Your task to perform on an android device: turn on the 24-hour format for clock Image 0: 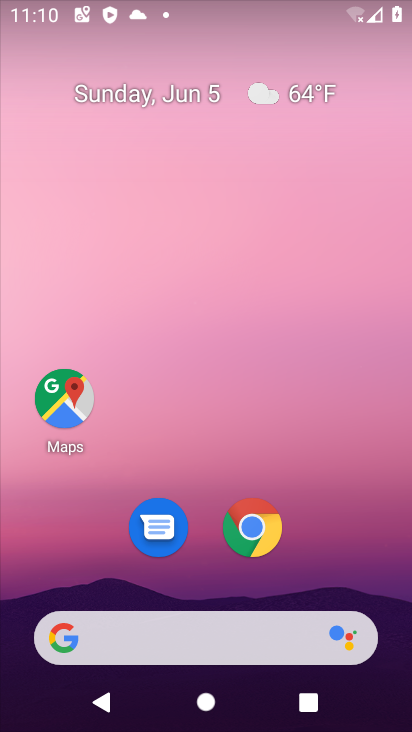
Step 0: drag from (336, 464) to (328, 65)
Your task to perform on an android device: turn on the 24-hour format for clock Image 1: 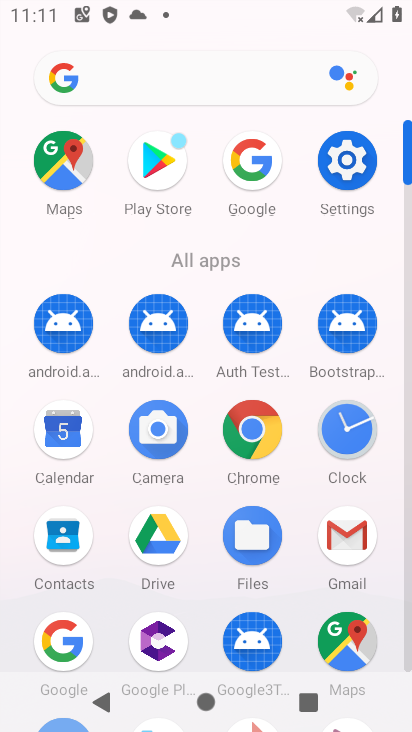
Step 1: click (338, 450)
Your task to perform on an android device: turn on the 24-hour format for clock Image 2: 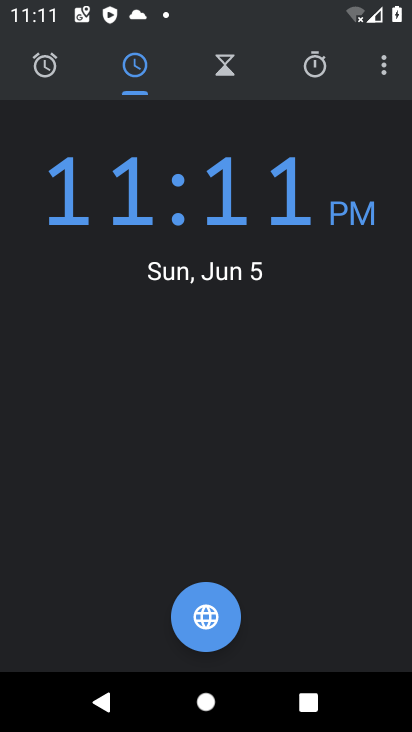
Step 2: click (379, 74)
Your task to perform on an android device: turn on the 24-hour format for clock Image 3: 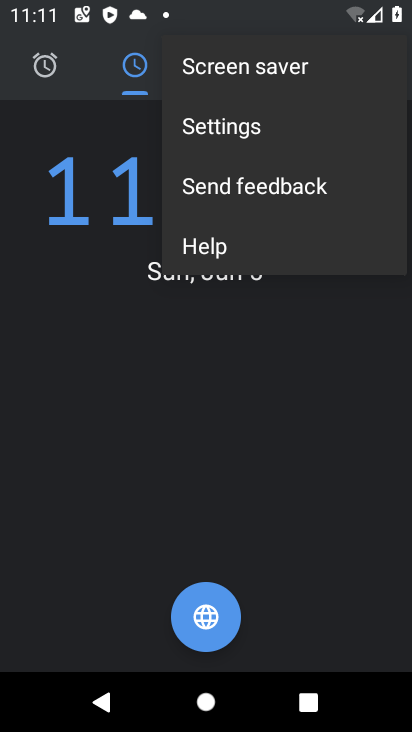
Step 3: click (250, 137)
Your task to perform on an android device: turn on the 24-hour format for clock Image 4: 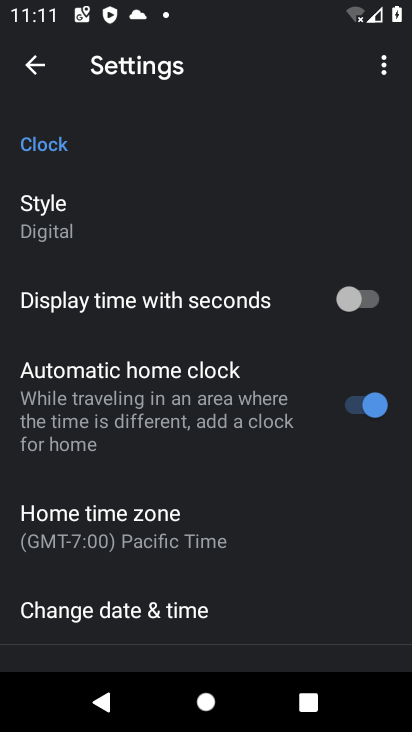
Step 4: drag from (275, 553) to (270, 238)
Your task to perform on an android device: turn on the 24-hour format for clock Image 5: 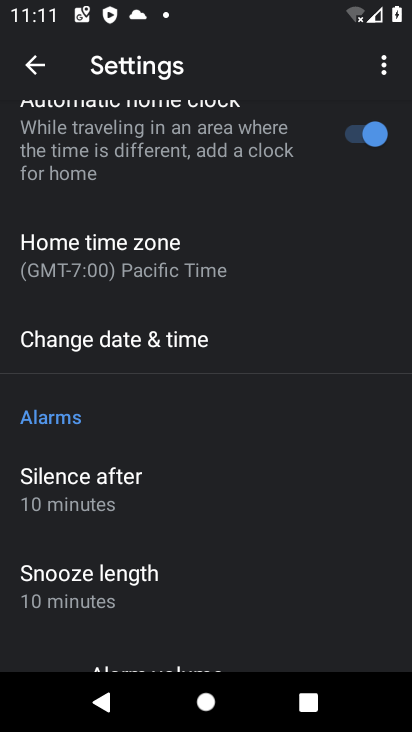
Step 5: click (147, 323)
Your task to perform on an android device: turn on the 24-hour format for clock Image 6: 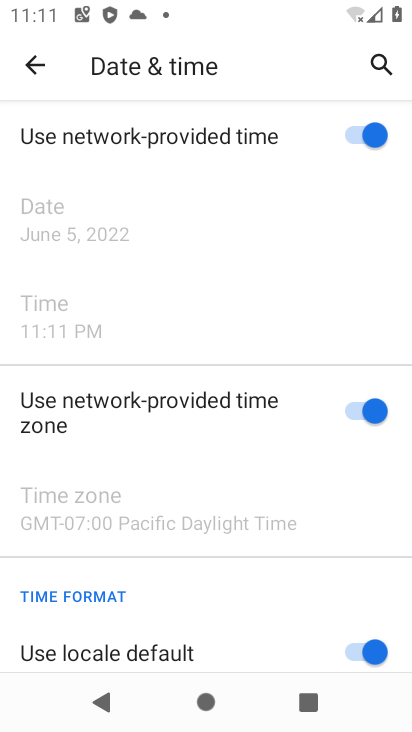
Step 6: drag from (148, 229) to (159, 305)
Your task to perform on an android device: turn on the 24-hour format for clock Image 7: 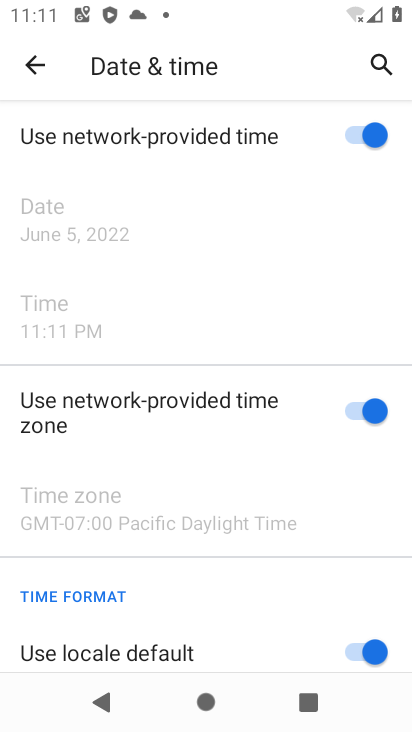
Step 7: drag from (191, 487) to (128, 261)
Your task to perform on an android device: turn on the 24-hour format for clock Image 8: 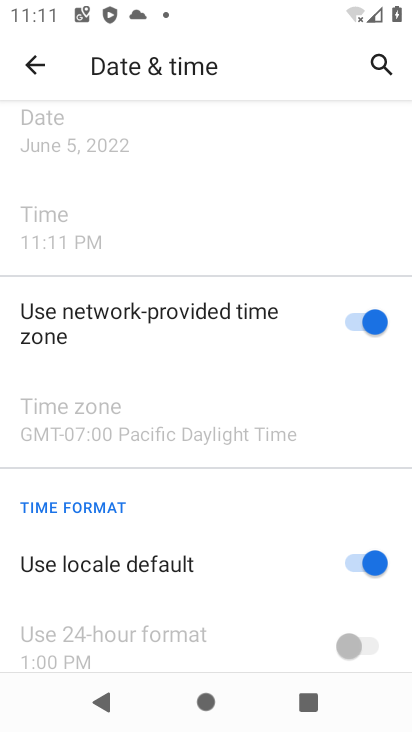
Step 8: click (377, 556)
Your task to perform on an android device: turn on the 24-hour format for clock Image 9: 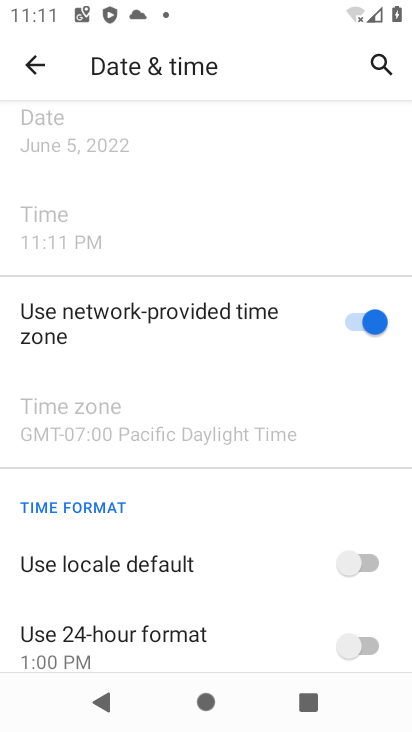
Step 9: click (359, 645)
Your task to perform on an android device: turn on the 24-hour format for clock Image 10: 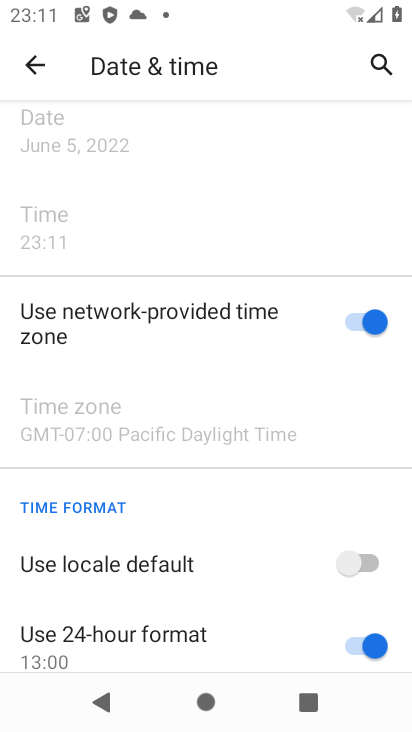
Step 10: task complete